Your task to perform on an android device: toggle pop-ups in chrome Image 0: 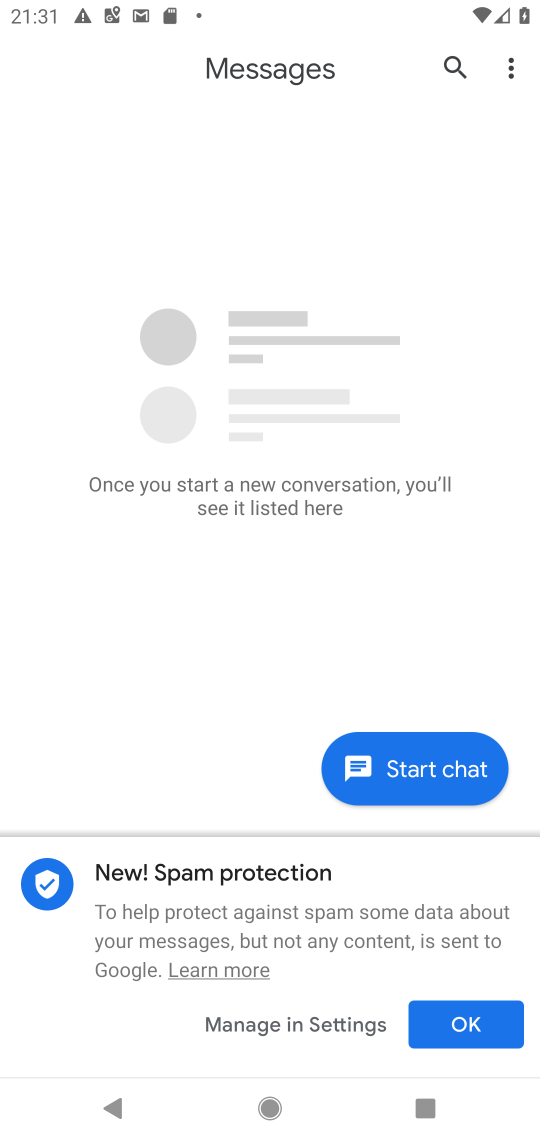
Step 0: press home button
Your task to perform on an android device: toggle pop-ups in chrome Image 1: 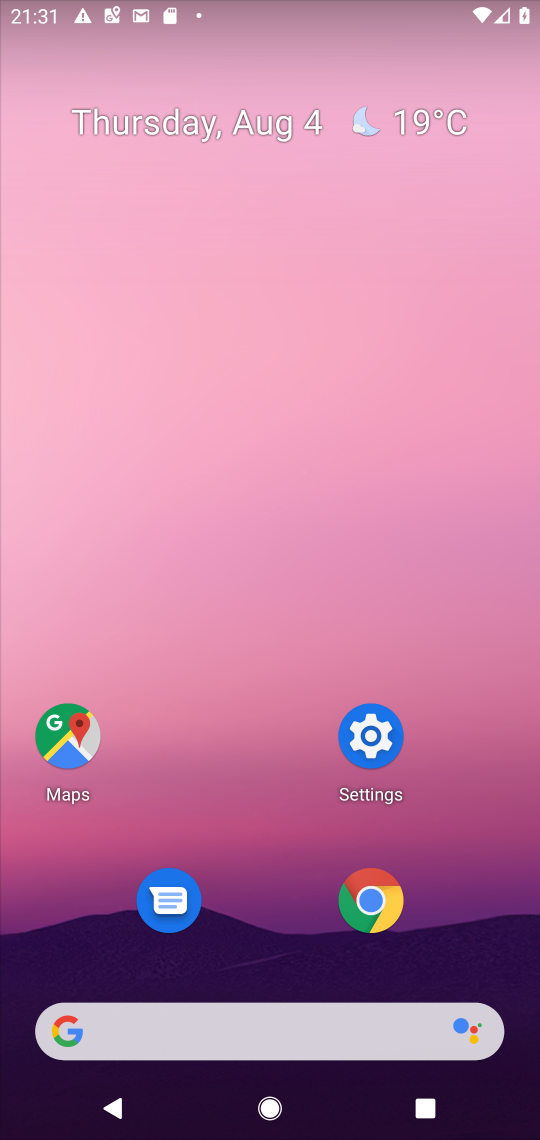
Step 1: click (368, 901)
Your task to perform on an android device: toggle pop-ups in chrome Image 2: 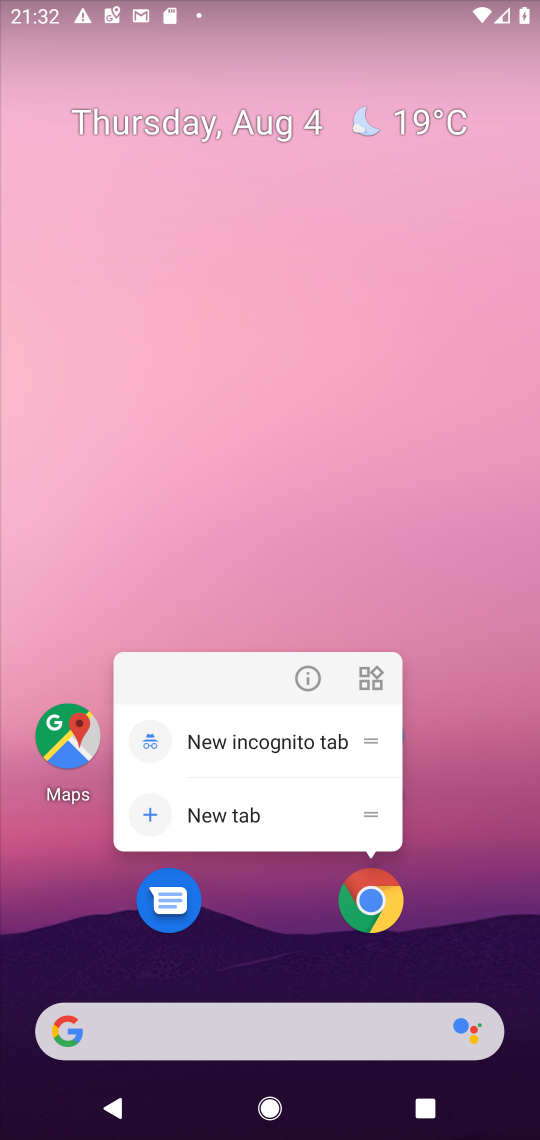
Step 2: click (375, 902)
Your task to perform on an android device: toggle pop-ups in chrome Image 3: 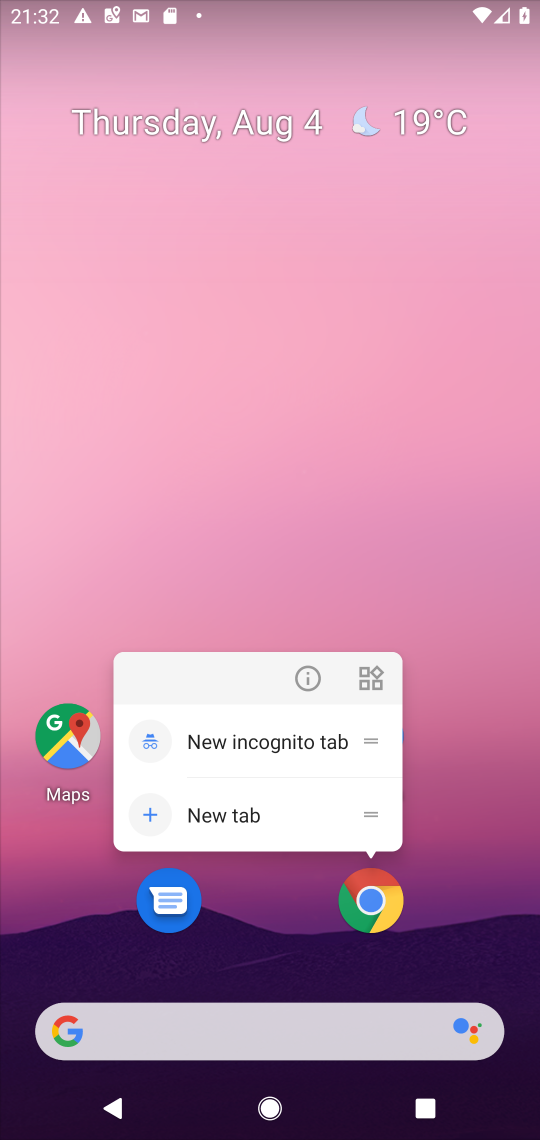
Step 3: click (375, 906)
Your task to perform on an android device: toggle pop-ups in chrome Image 4: 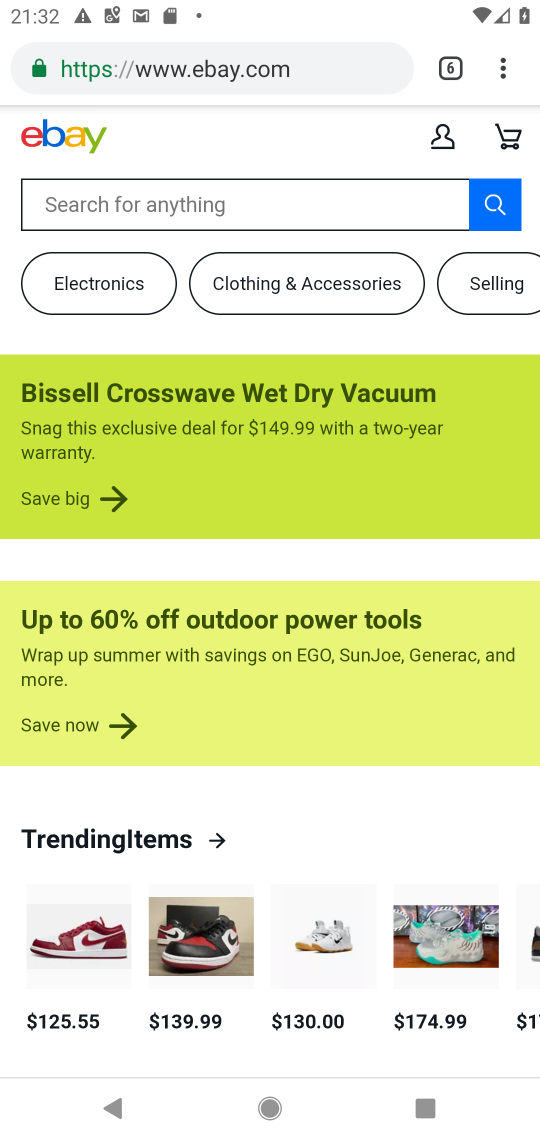
Step 4: drag from (504, 66) to (349, 892)
Your task to perform on an android device: toggle pop-ups in chrome Image 5: 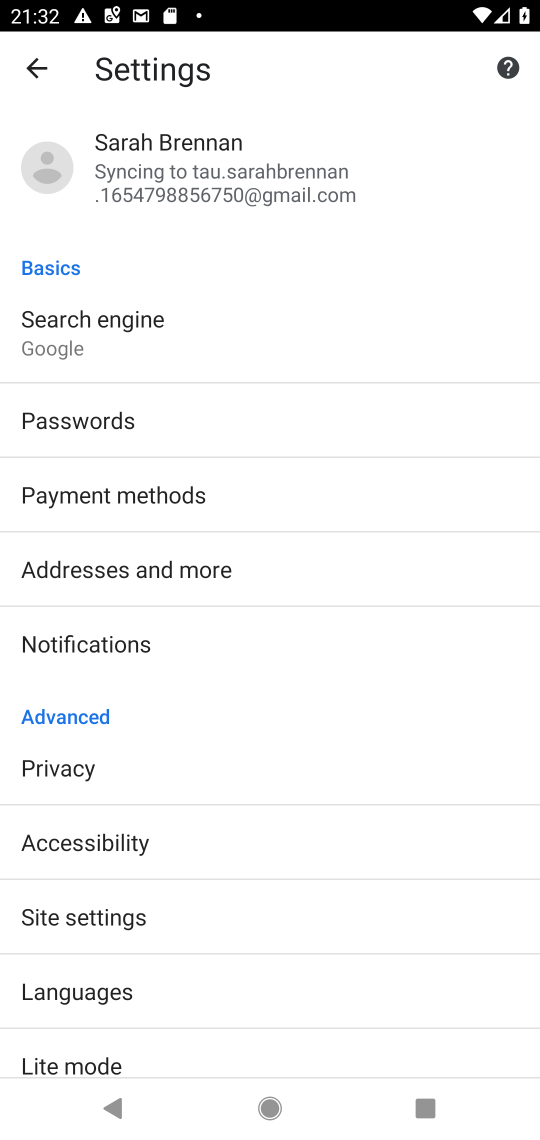
Step 5: click (129, 911)
Your task to perform on an android device: toggle pop-ups in chrome Image 6: 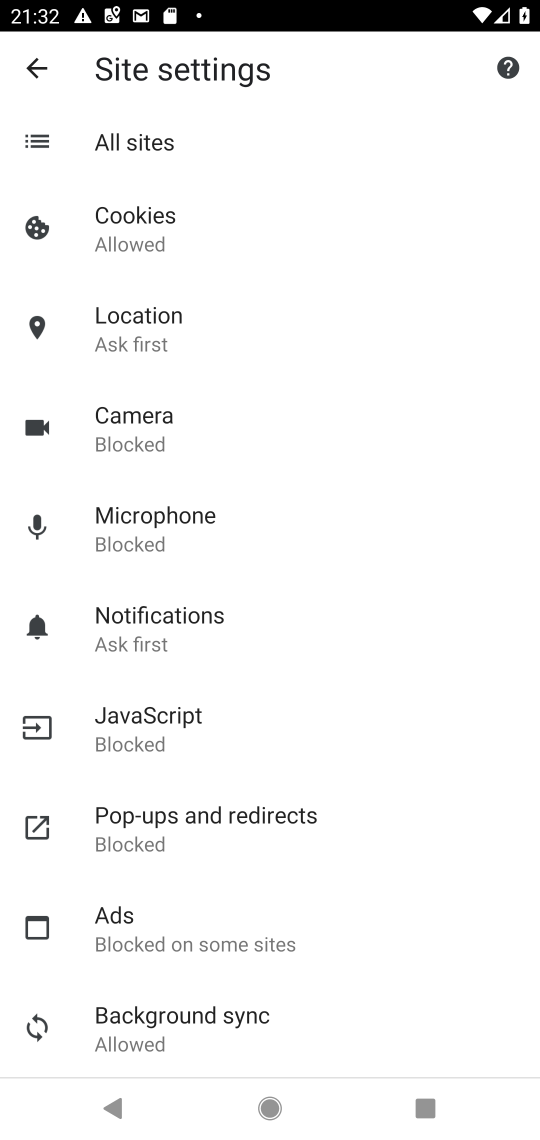
Step 6: click (193, 828)
Your task to perform on an android device: toggle pop-ups in chrome Image 7: 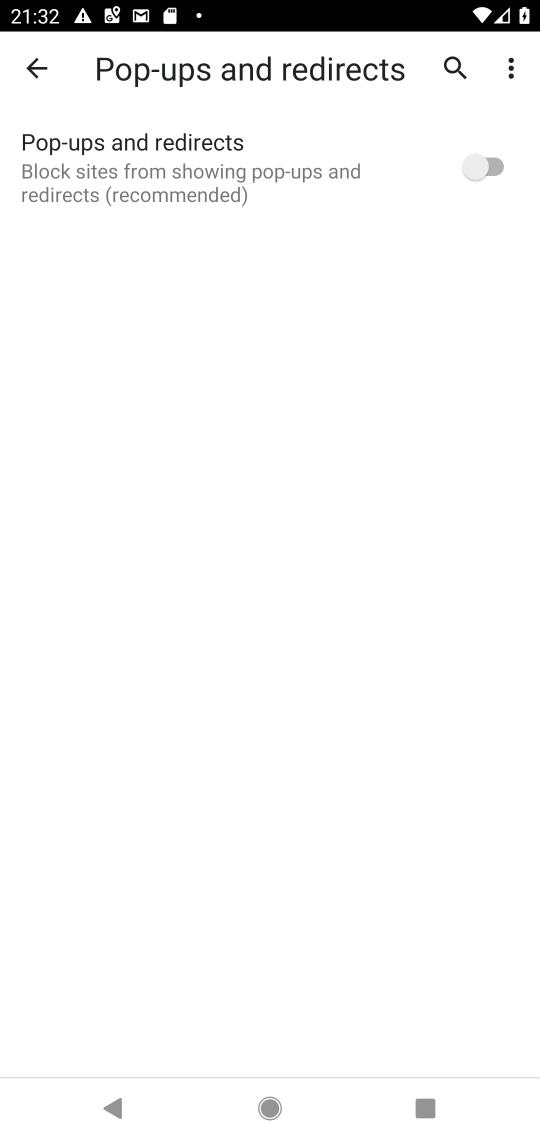
Step 7: click (490, 170)
Your task to perform on an android device: toggle pop-ups in chrome Image 8: 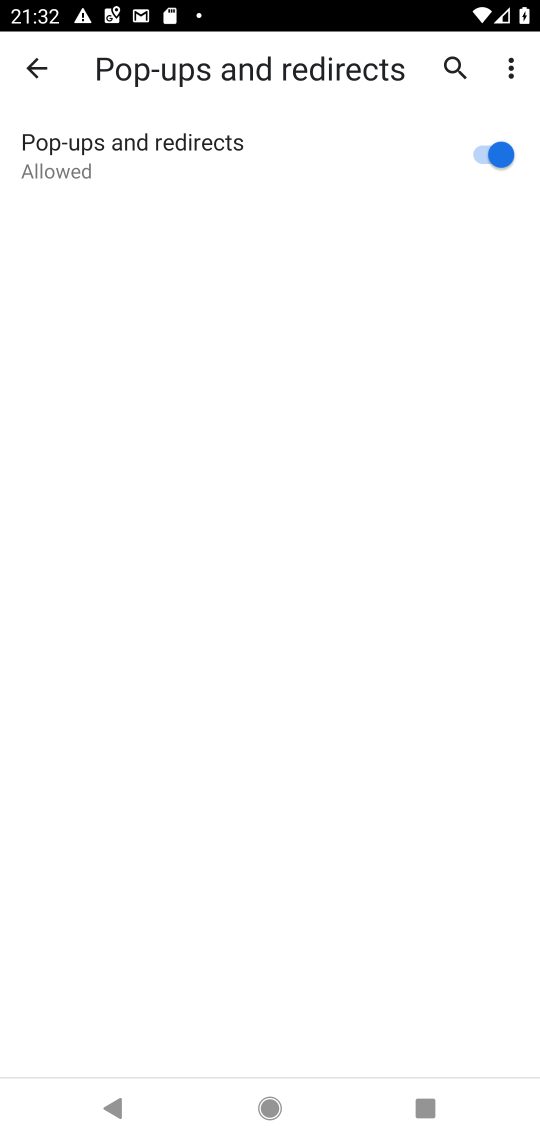
Step 8: task complete